Your task to perform on an android device: Go to Yahoo.com Image 0: 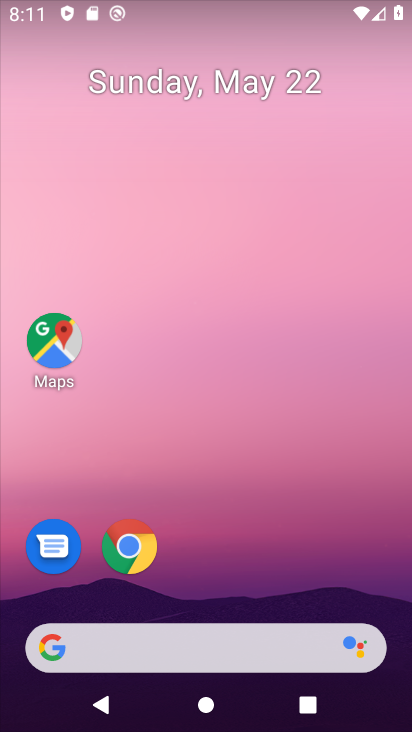
Step 0: click (137, 549)
Your task to perform on an android device: Go to Yahoo.com Image 1: 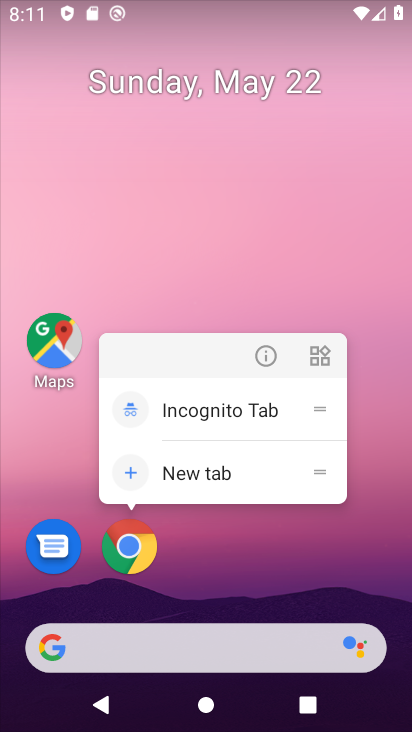
Step 1: click (137, 549)
Your task to perform on an android device: Go to Yahoo.com Image 2: 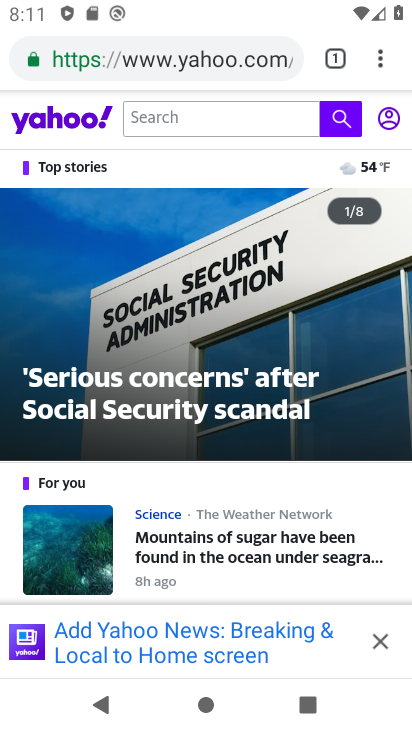
Step 2: task complete